Your task to perform on an android device: Open Google Image 0: 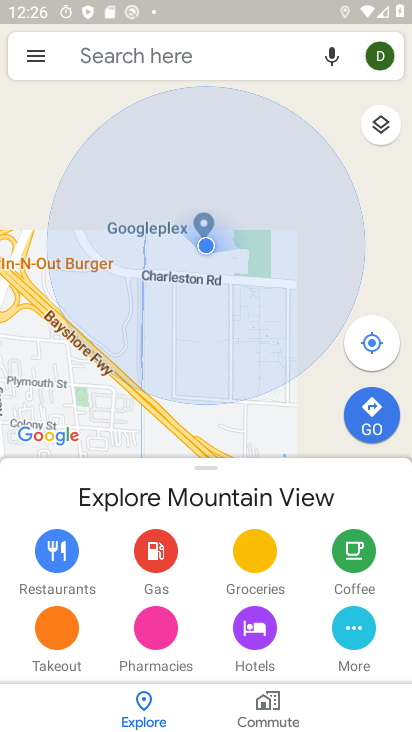
Step 0: press back button
Your task to perform on an android device: Open Google Image 1: 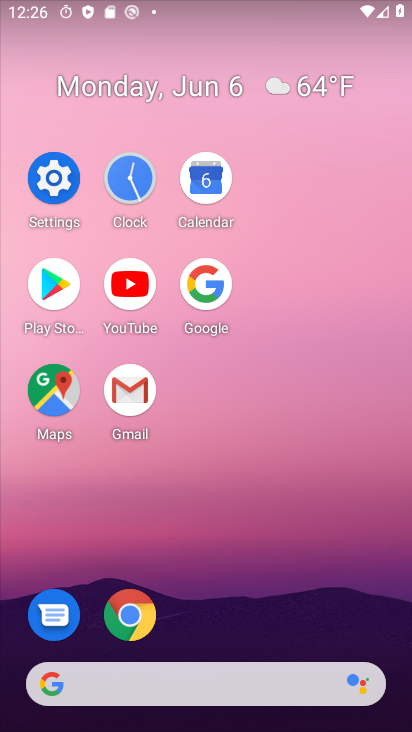
Step 1: click (202, 307)
Your task to perform on an android device: Open Google Image 2: 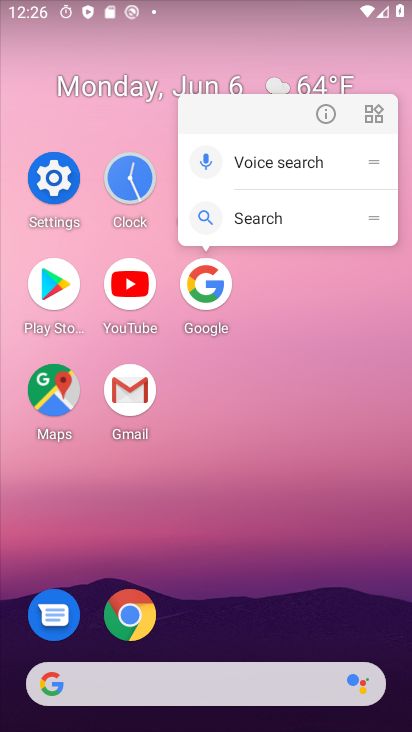
Step 2: click (227, 280)
Your task to perform on an android device: Open Google Image 3: 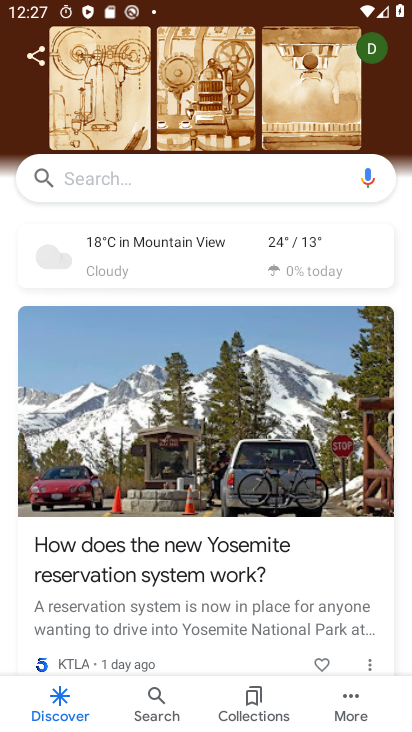
Step 3: task complete